Your task to perform on an android device: toggle javascript in the chrome app Image 0: 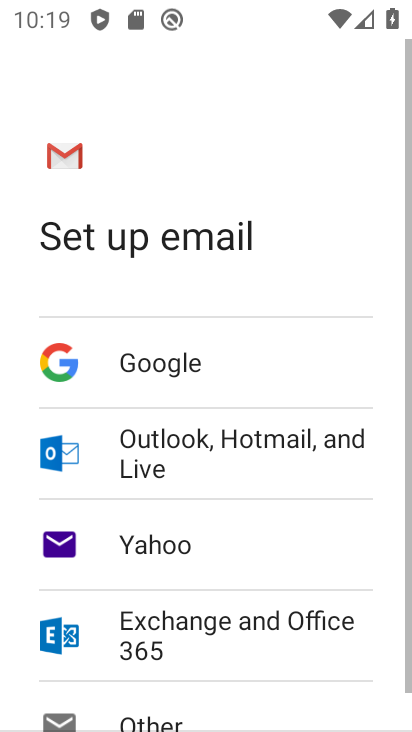
Step 0: press home button
Your task to perform on an android device: toggle javascript in the chrome app Image 1: 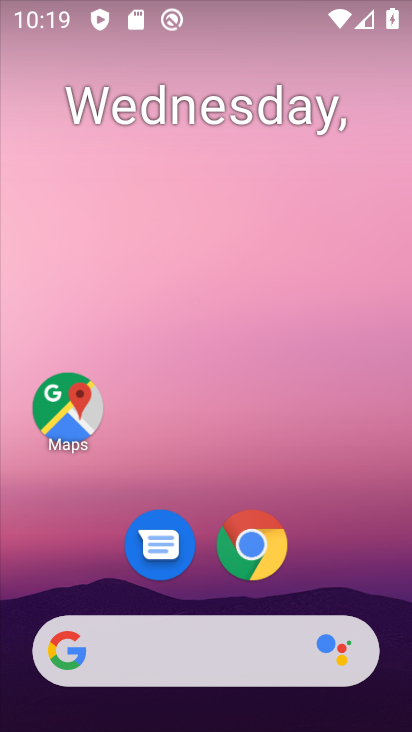
Step 1: click (234, 522)
Your task to perform on an android device: toggle javascript in the chrome app Image 2: 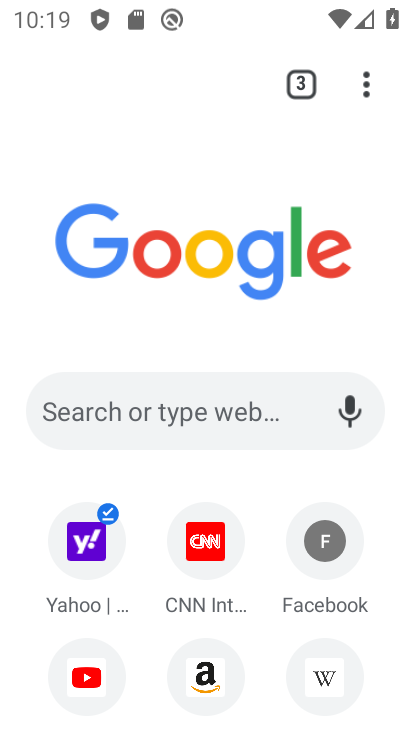
Step 2: drag from (366, 92) to (137, 604)
Your task to perform on an android device: toggle javascript in the chrome app Image 3: 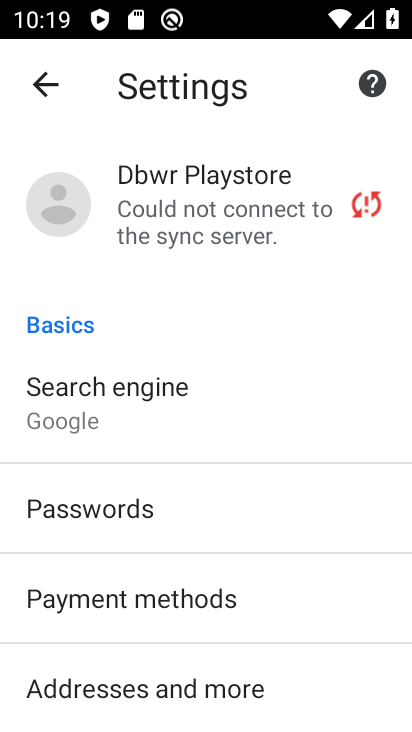
Step 3: drag from (112, 569) to (189, 262)
Your task to perform on an android device: toggle javascript in the chrome app Image 4: 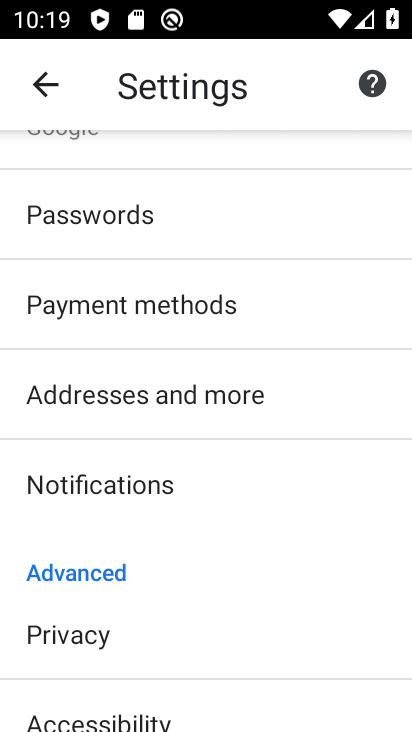
Step 4: drag from (213, 580) to (270, 229)
Your task to perform on an android device: toggle javascript in the chrome app Image 5: 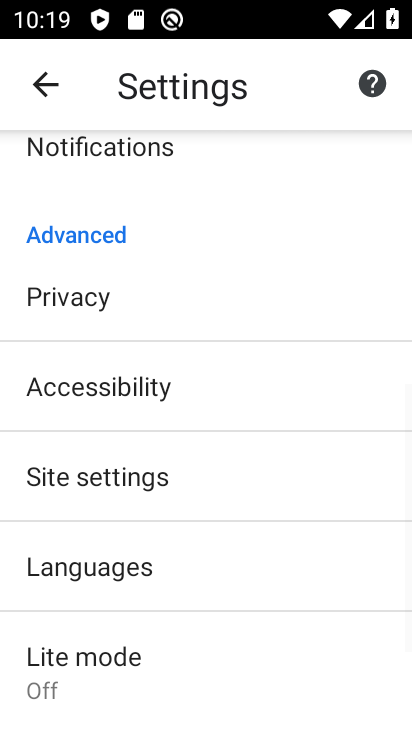
Step 5: drag from (157, 567) to (202, 445)
Your task to perform on an android device: toggle javascript in the chrome app Image 6: 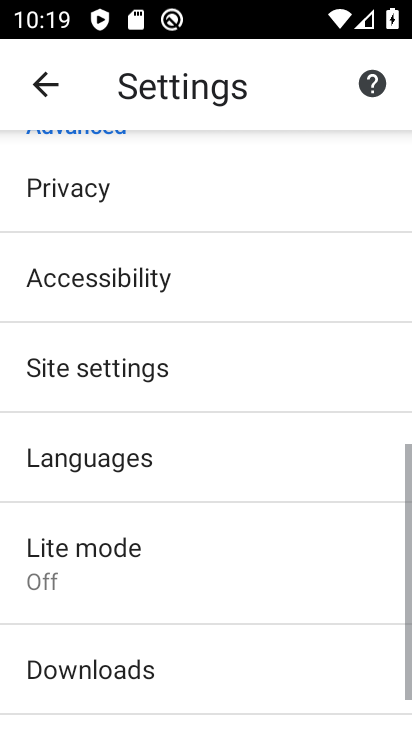
Step 6: click (184, 365)
Your task to perform on an android device: toggle javascript in the chrome app Image 7: 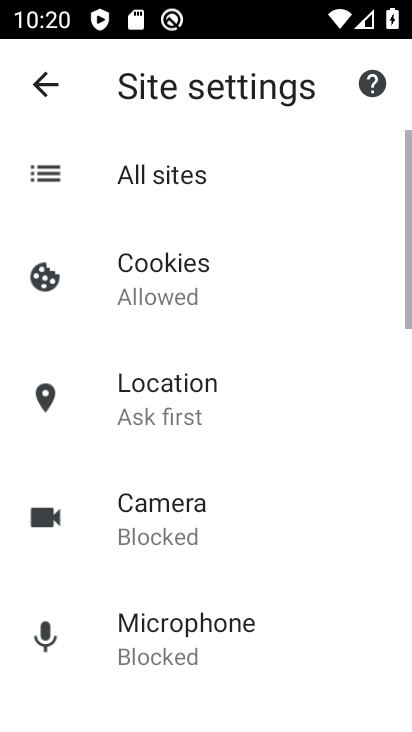
Step 7: drag from (209, 528) to (261, 202)
Your task to perform on an android device: toggle javascript in the chrome app Image 8: 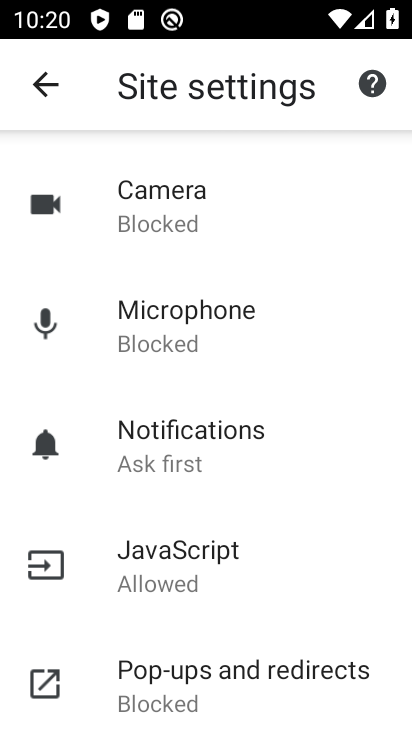
Step 8: click (162, 525)
Your task to perform on an android device: toggle javascript in the chrome app Image 9: 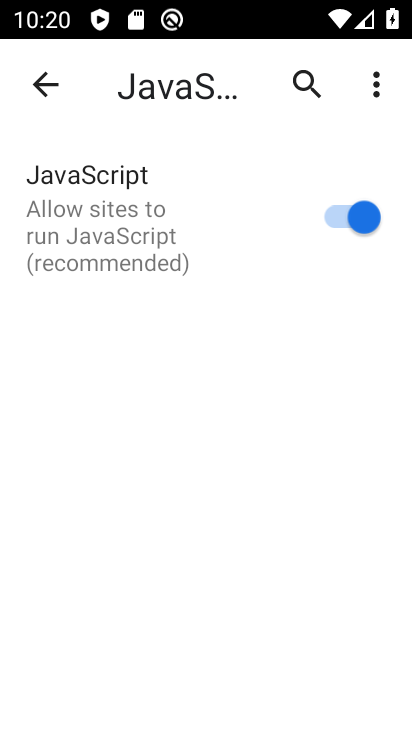
Step 9: task complete